Your task to perform on an android device: show emergency info Image 0: 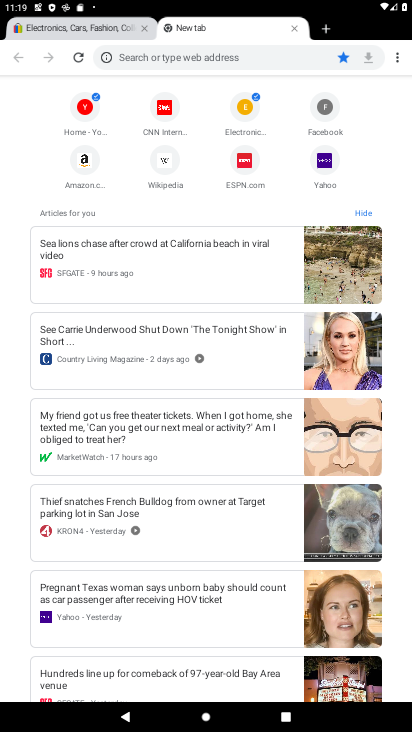
Step 0: press home button
Your task to perform on an android device: show emergency info Image 1: 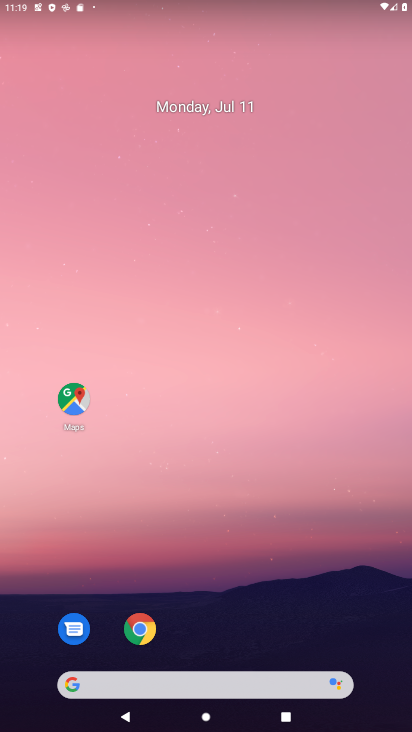
Step 1: drag from (257, 609) to (249, 225)
Your task to perform on an android device: show emergency info Image 2: 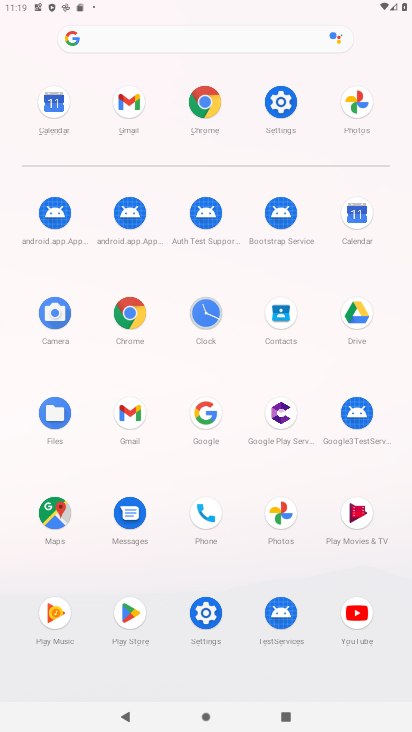
Step 2: click (282, 135)
Your task to perform on an android device: show emergency info Image 3: 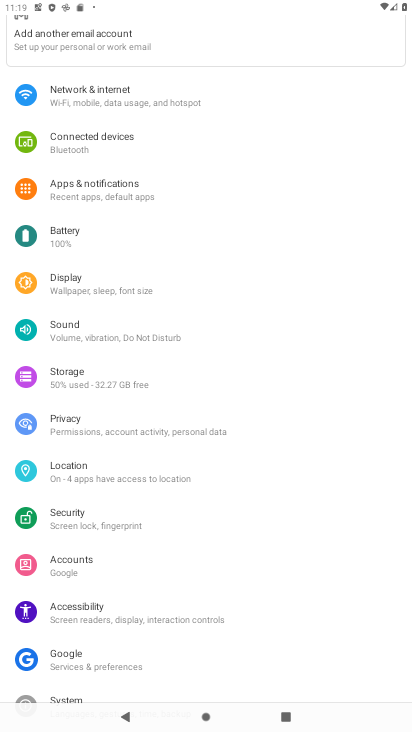
Step 3: drag from (150, 561) to (110, 147)
Your task to perform on an android device: show emergency info Image 4: 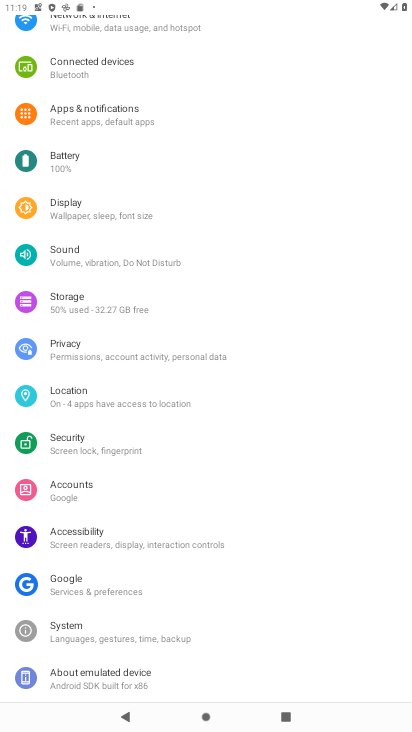
Step 4: click (140, 690)
Your task to perform on an android device: show emergency info Image 5: 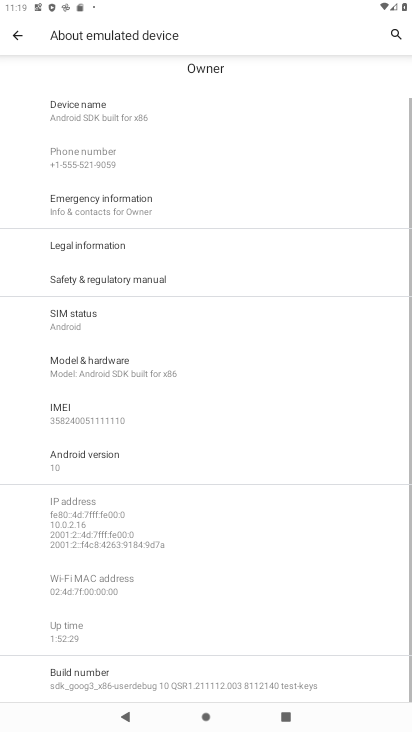
Step 5: click (152, 197)
Your task to perform on an android device: show emergency info Image 6: 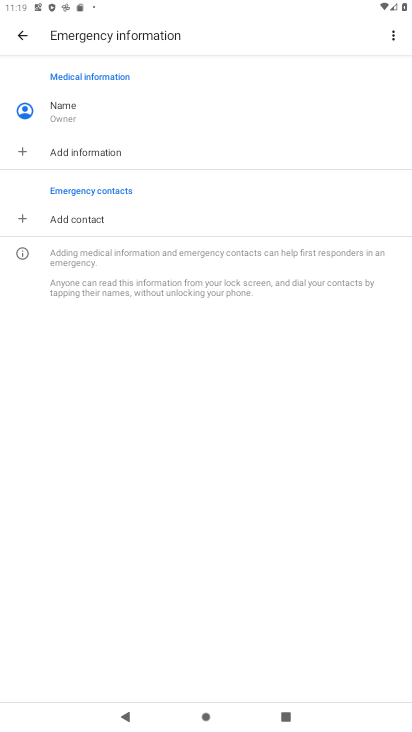
Step 6: task complete